Your task to perform on an android device: Open ESPN.com Image 0: 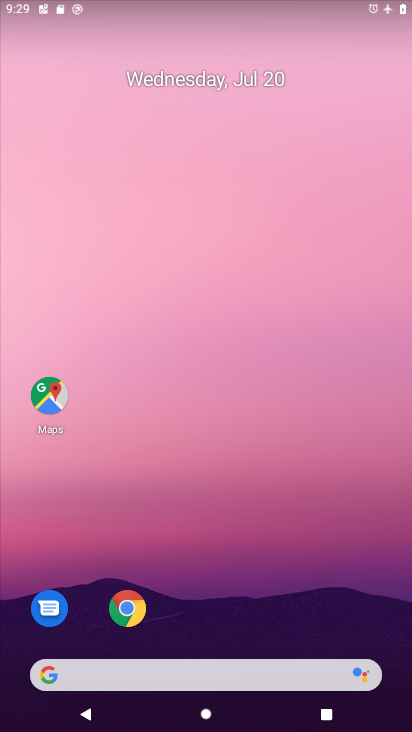
Step 0: drag from (231, 661) to (211, 367)
Your task to perform on an android device: Open ESPN.com Image 1: 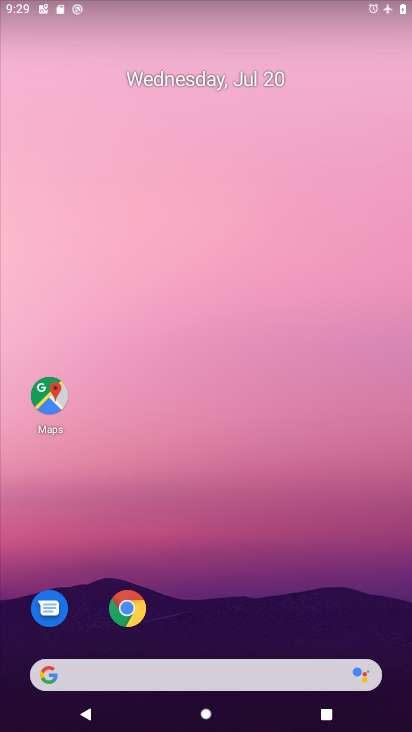
Step 1: drag from (211, 639) to (198, 184)
Your task to perform on an android device: Open ESPN.com Image 2: 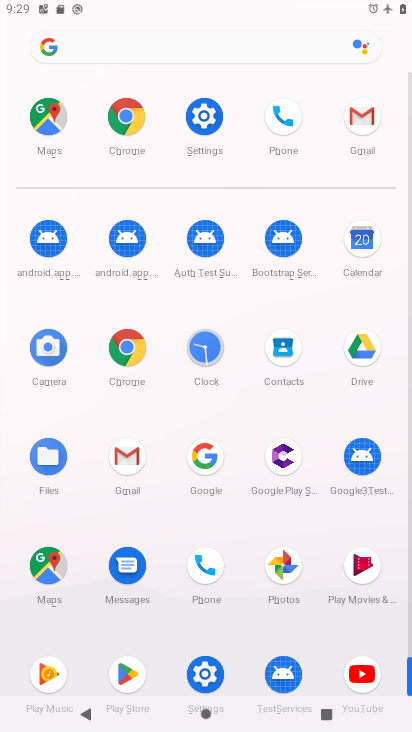
Step 2: click (121, 111)
Your task to perform on an android device: Open ESPN.com Image 3: 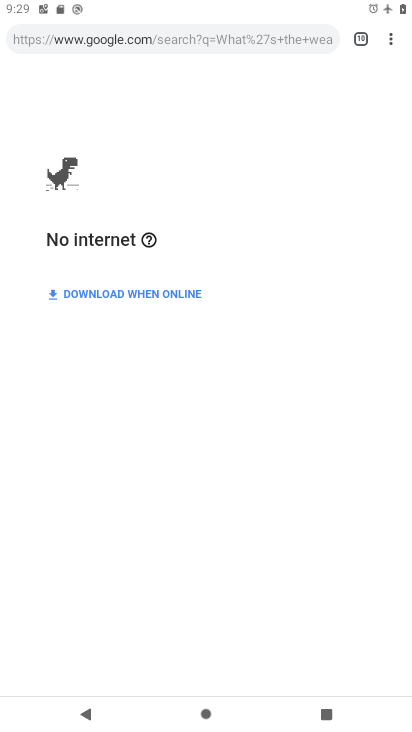
Step 3: click (396, 39)
Your task to perform on an android device: Open ESPN.com Image 4: 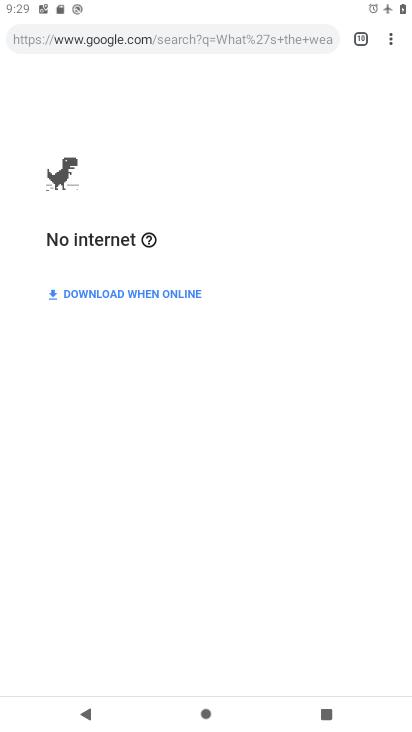
Step 4: click (379, 32)
Your task to perform on an android device: Open ESPN.com Image 5: 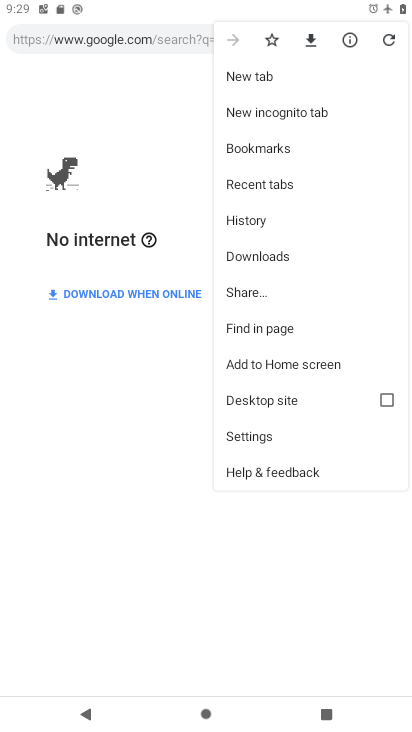
Step 5: click (268, 63)
Your task to perform on an android device: Open ESPN.com Image 6: 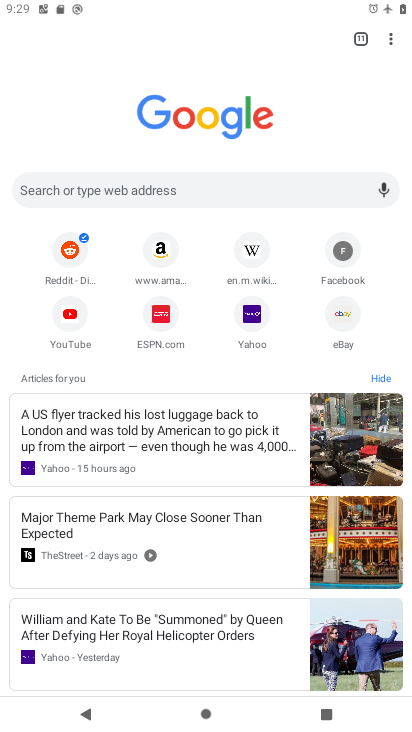
Step 6: click (153, 304)
Your task to perform on an android device: Open ESPN.com Image 7: 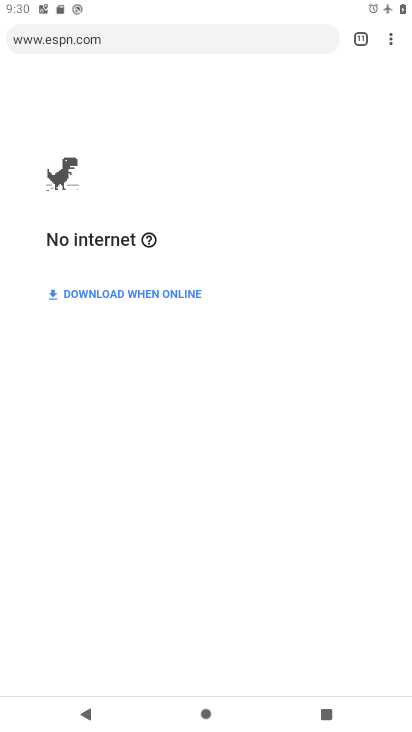
Step 7: task complete